Your task to perform on an android device: Add "razer blackwidow" to the cart on amazon.com Image 0: 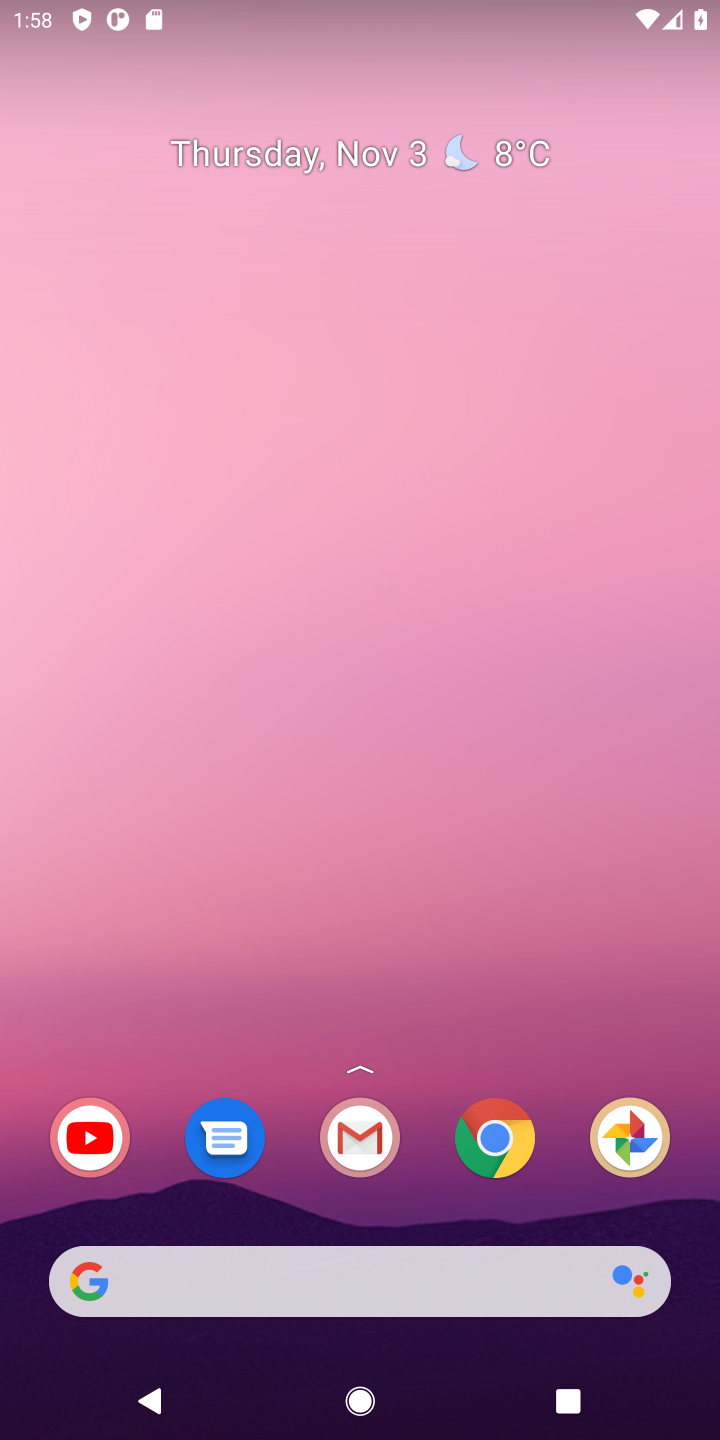
Step 0: click (485, 1146)
Your task to perform on an android device: Add "razer blackwidow" to the cart on amazon.com Image 1: 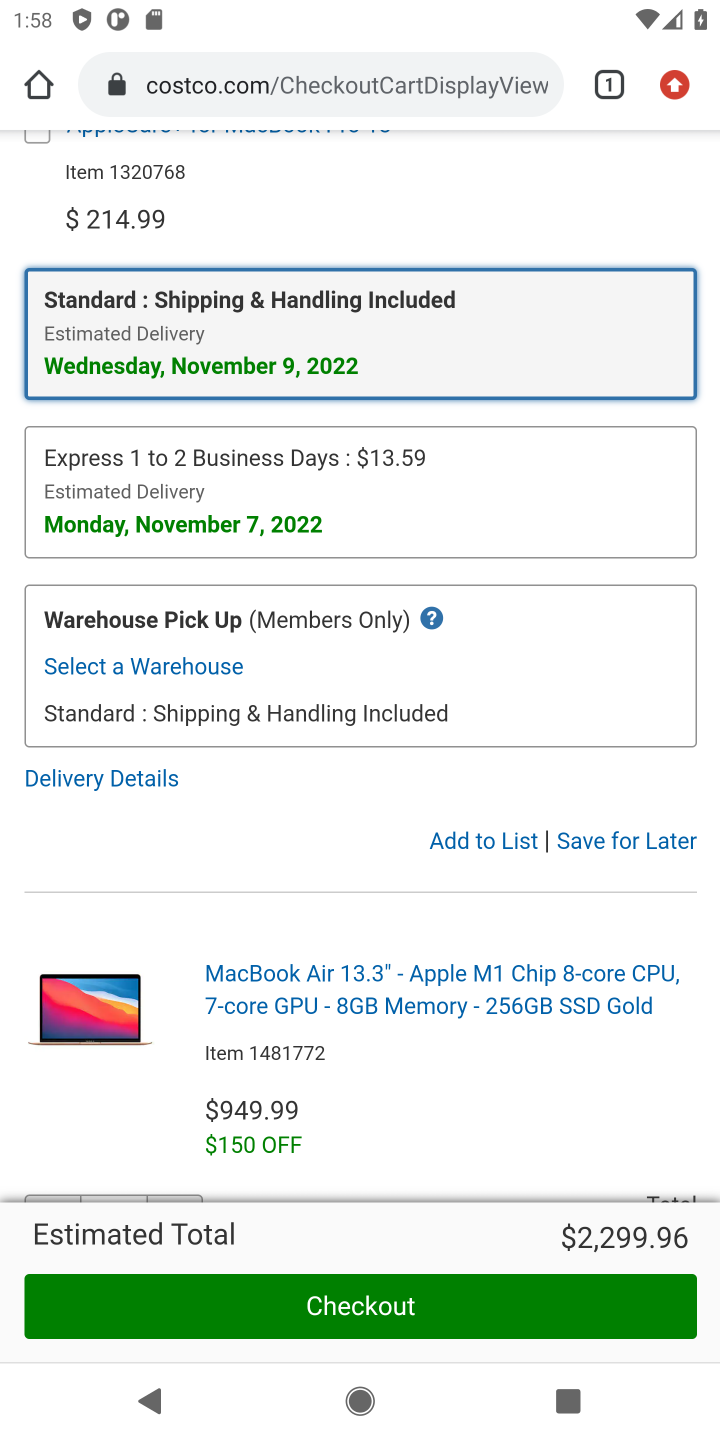
Step 1: click (238, 84)
Your task to perform on an android device: Add "razer blackwidow" to the cart on amazon.com Image 2: 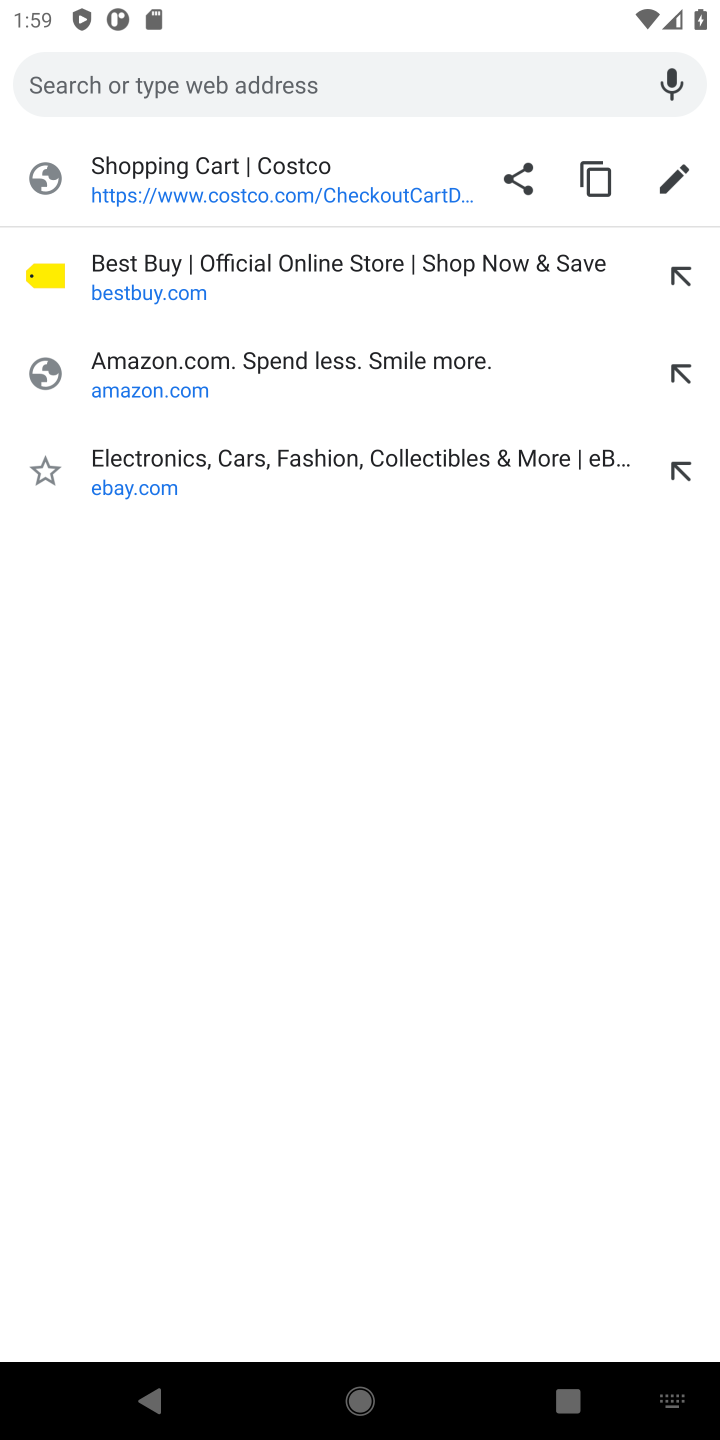
Step 2: click (148, 368)
Your task to perform on an android device: Add "razer blackwidow" to the cart on amazon.com Image 3: 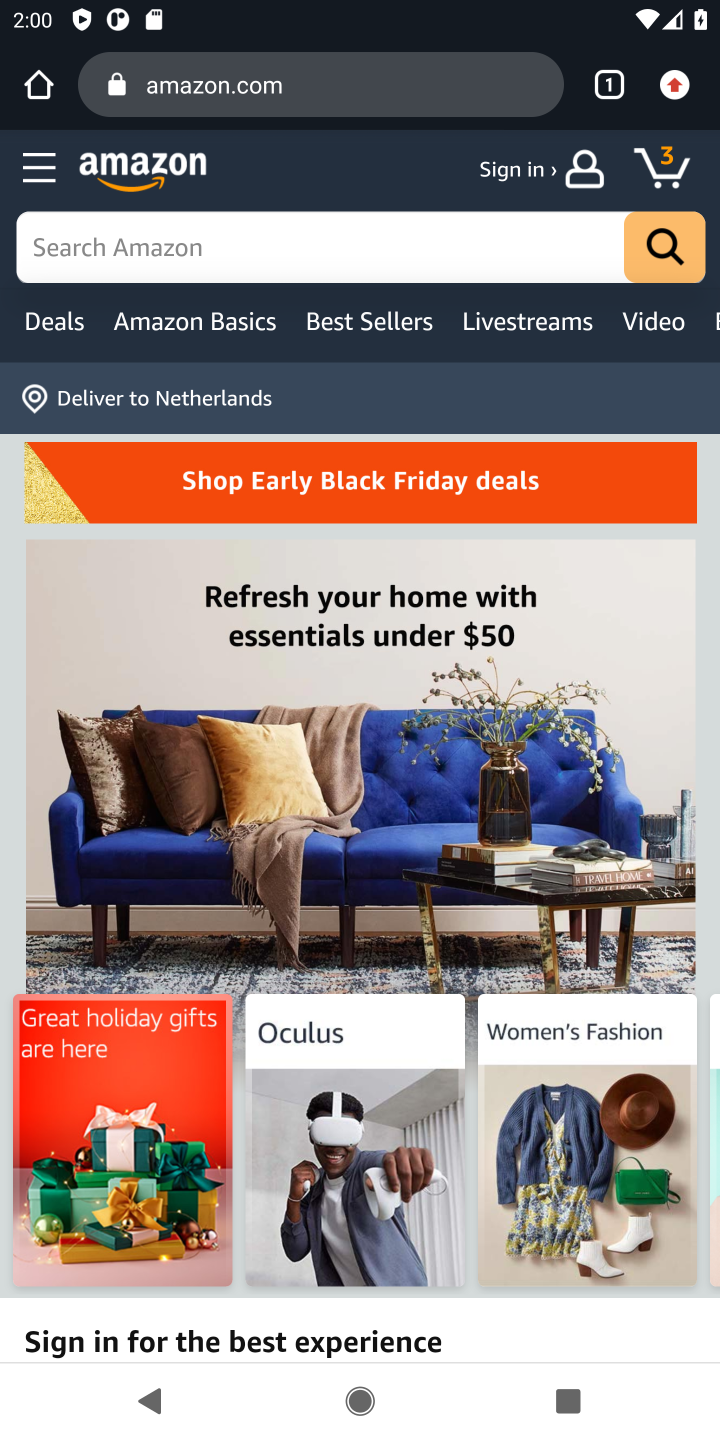
Step 3: click (198, 254)
Your task to perform on an android device: Add "razer blackwidow" to the cart on amazon.com Image 4: 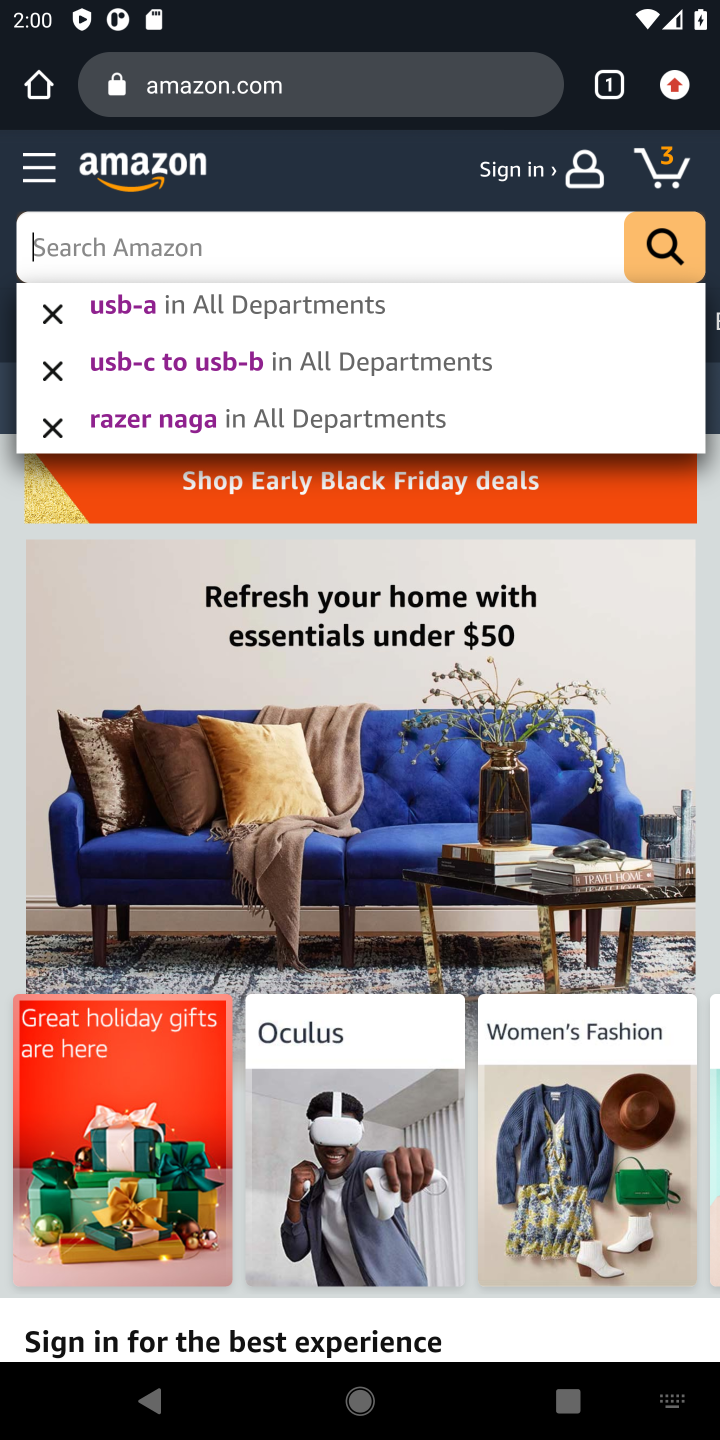
Step 4: type "razer blackwidow"
Your task to perform on an android device: Add "razer blackwidow" to the cart on amazon.com Image 5: 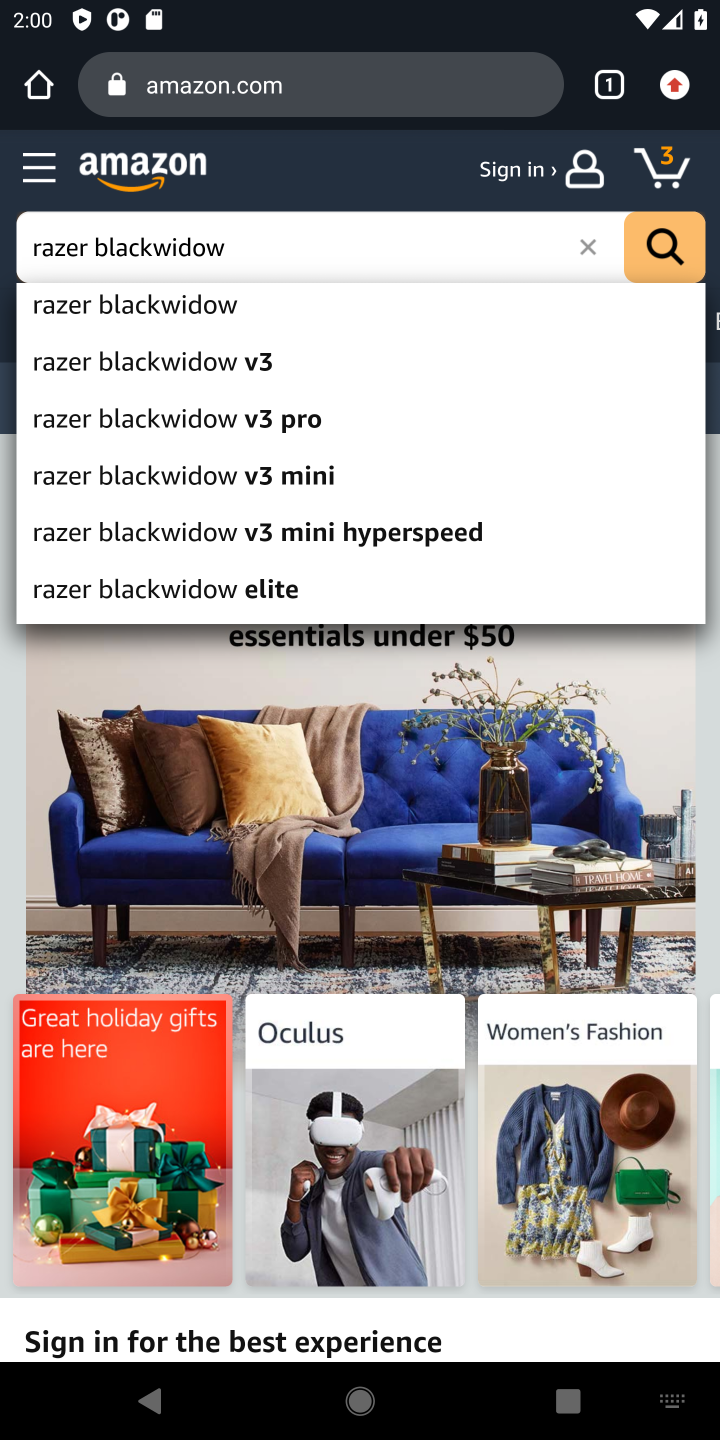
Step 5: click (676, 253)
Your task to perform on an android device: Add "razer blackwidow" to the cart on amazon.com Image 6: 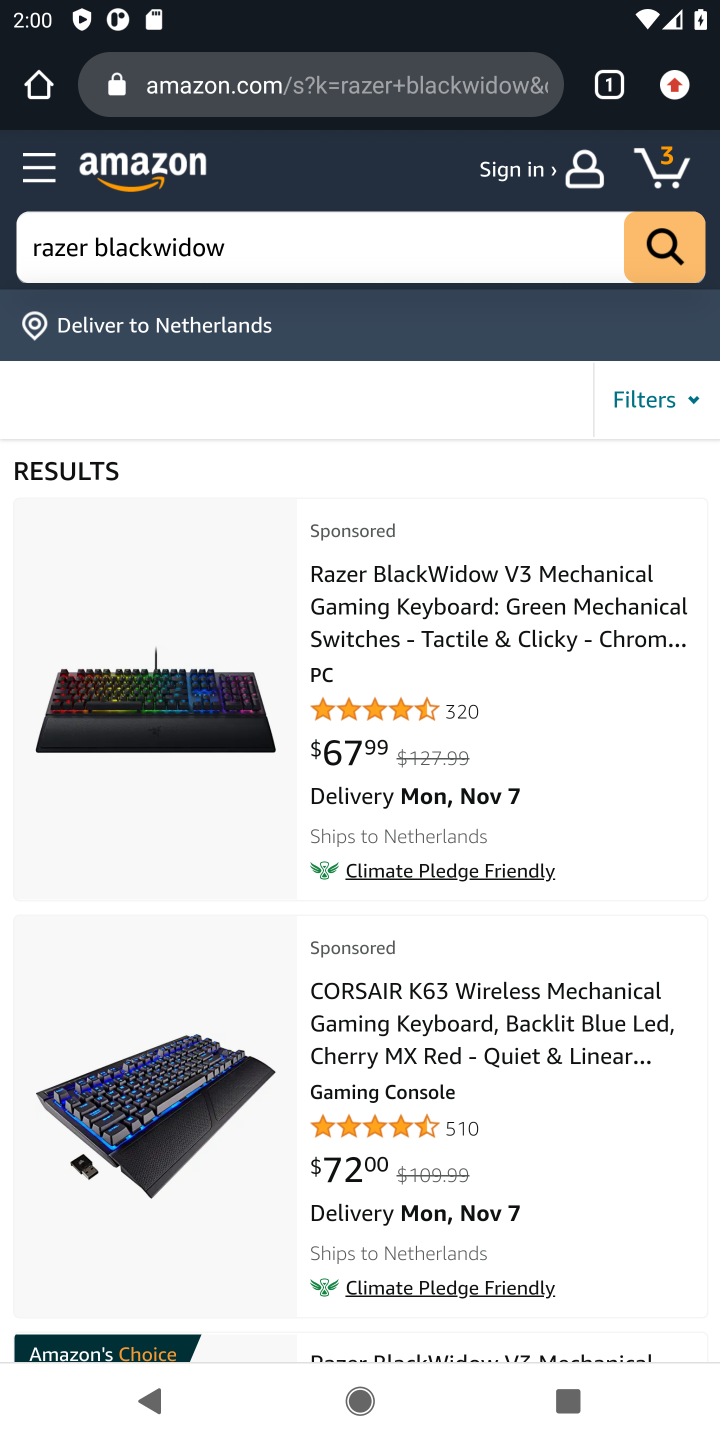
Step 6: click (491, 585)
Your task to perform on an android device: Add "razer blackwidow" to the cart on amazon.com Image 7: 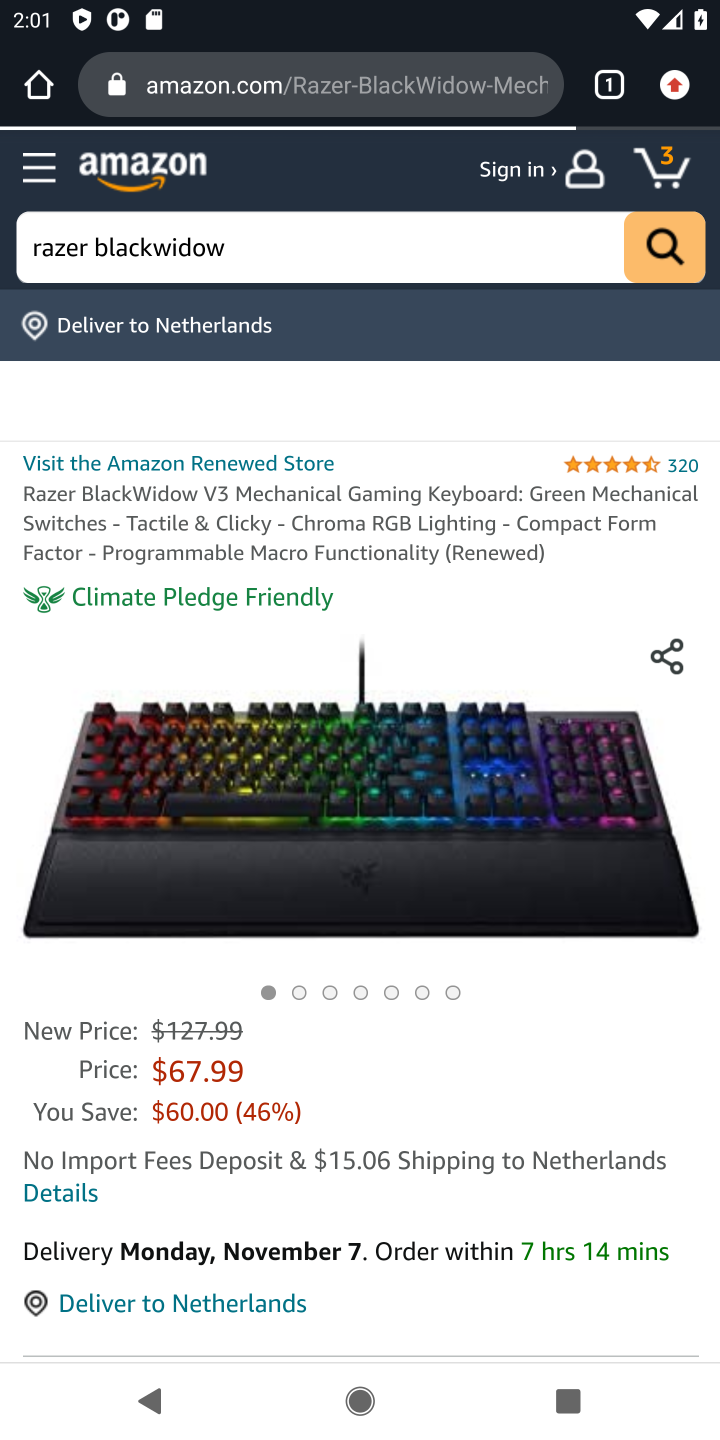
Step 7: drag from (347, 1303) to (409, 479)
Your task to perform on an android device: Add "razer blackwidow" to the cart on amazon.com Image 8: 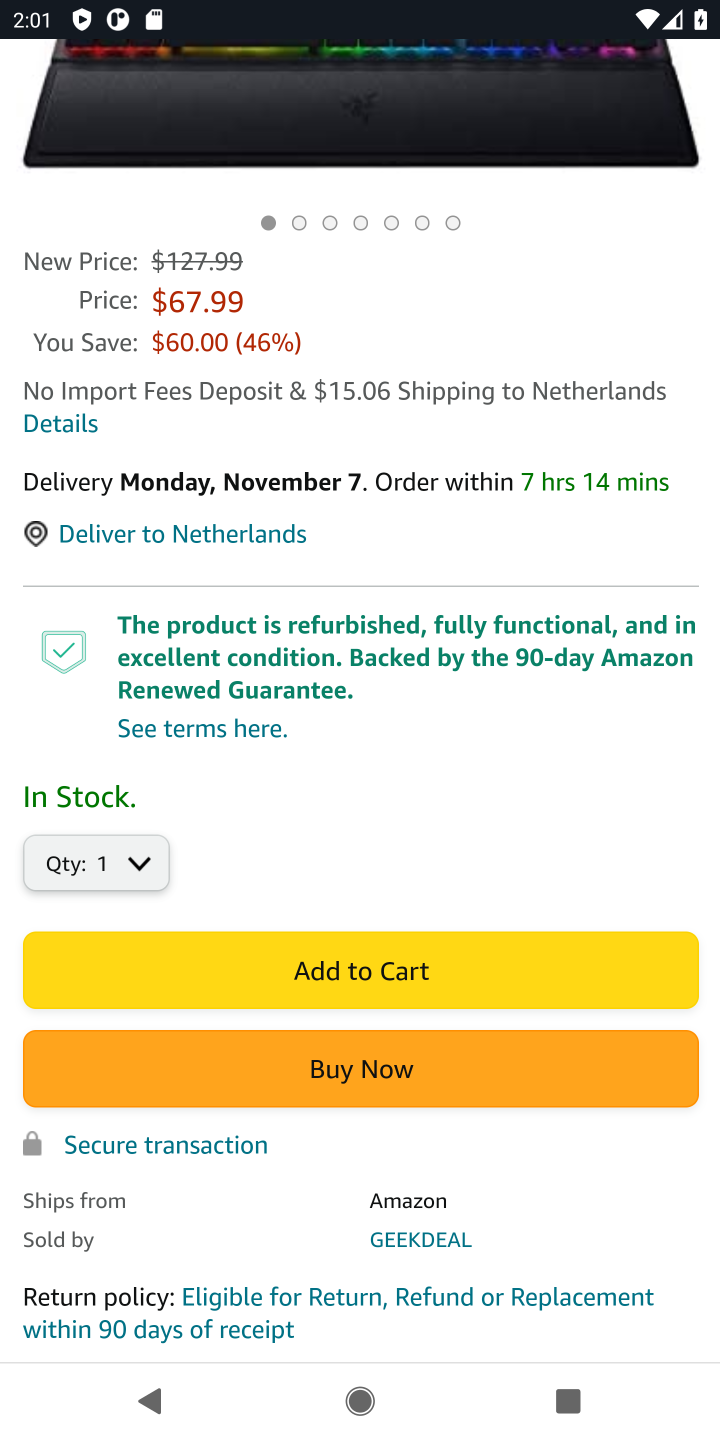
Step 8: click (406, 981)
Your task to perform on an android device: Add "razer blackwidow" to the cart on amazon.com Image 9: 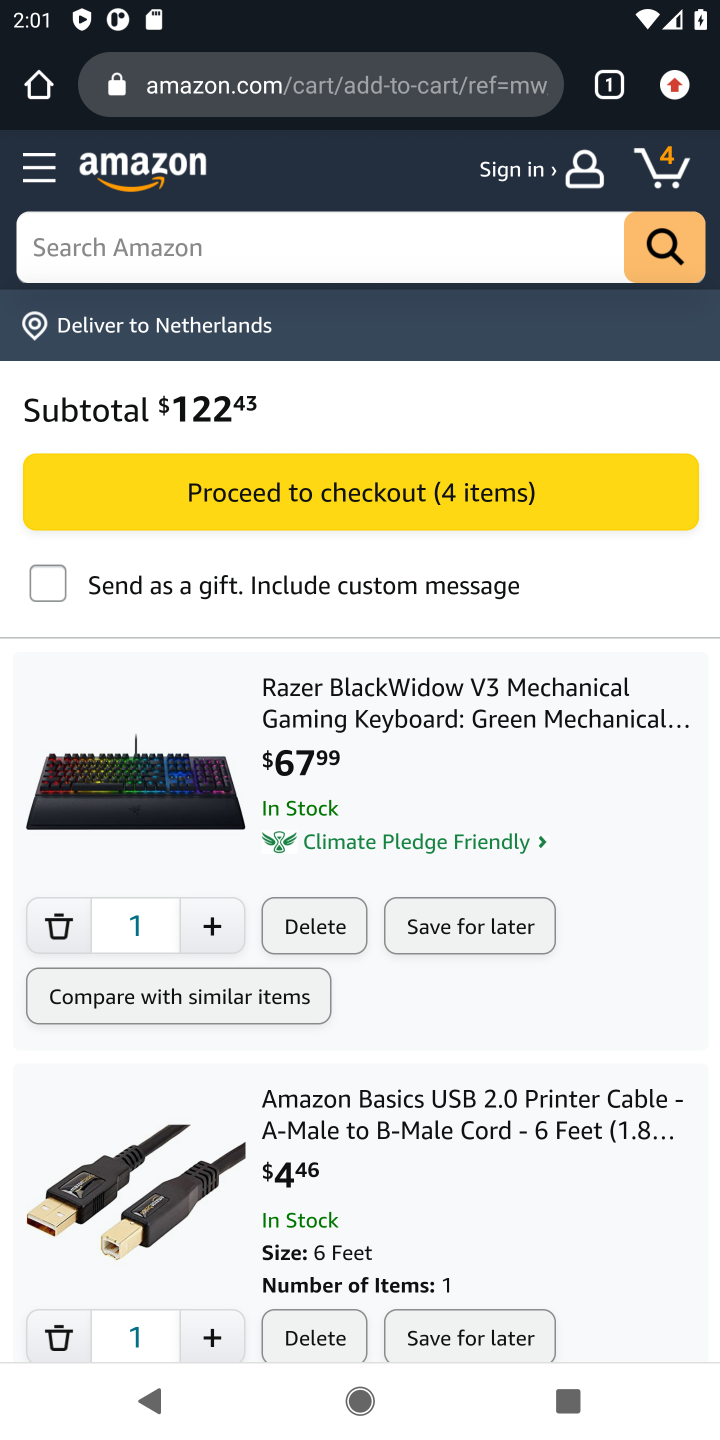
Step 9: task complete